Your task to perform on an android device: Open Chrome and go to settings Image 0: 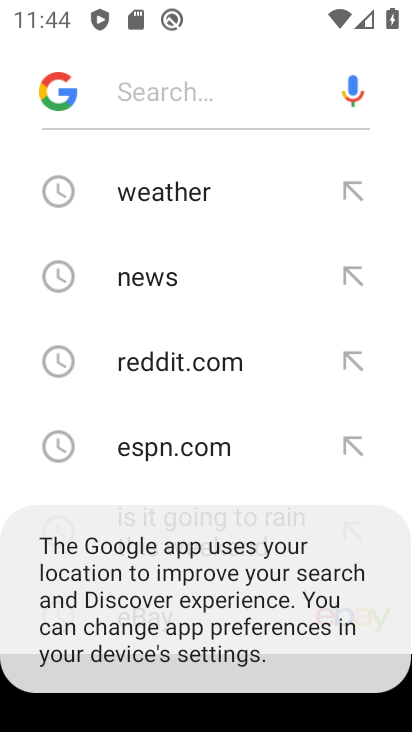
Step 0: press back button
Your task to perform on an android device: Open Chrome and go to settings Image 1: 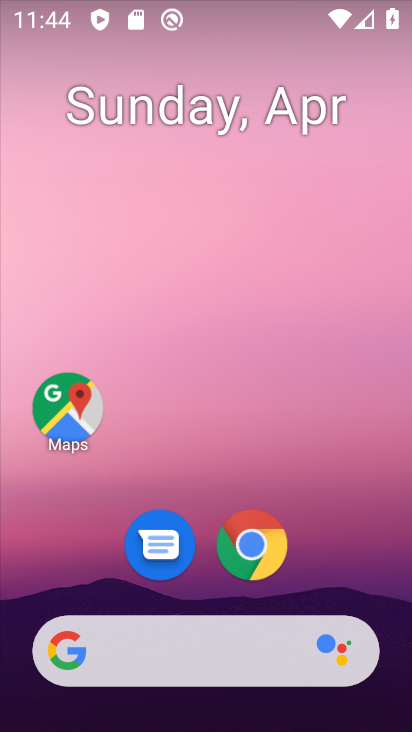
Step 1: drag from (232, 456) to (312, 58)
Your task to perform on an android device: Open Chrome and go to settings Image 2: 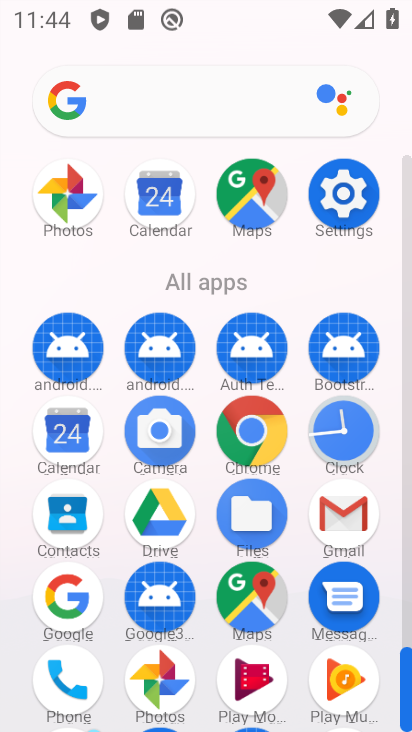
Step 2: click (267, 443)
Your task to perform on an android device: Open Chrome and go to settings Image 3: 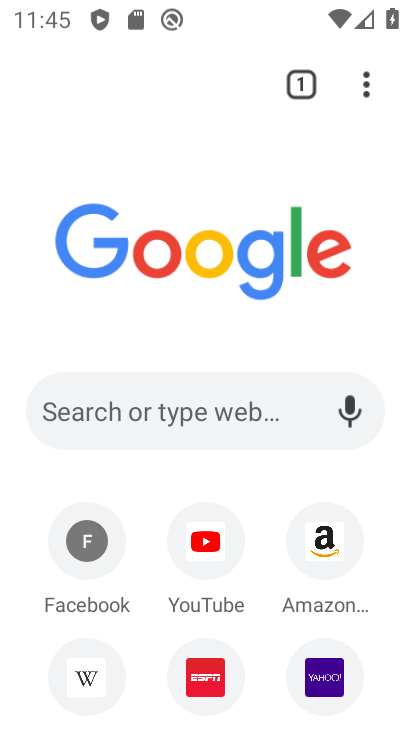
Step 3: task complete